Your task to perform on an android device: turn on data saver in the chrome app Image 0: 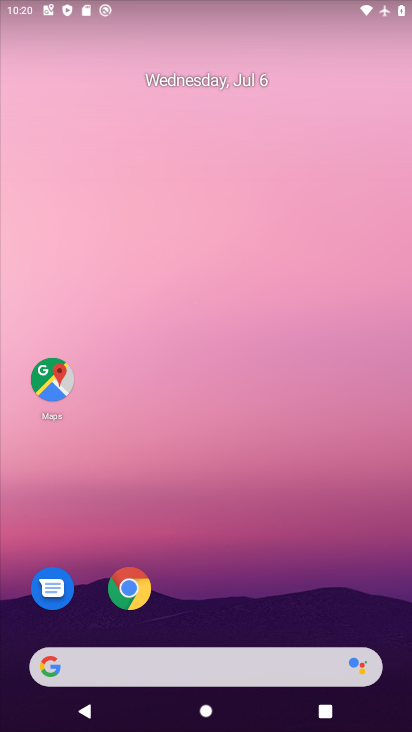
Step 0: drag from (240, 612) to (233, 266)
Your task to perform on an android device: turn on data saver in the chrome app Image 1: 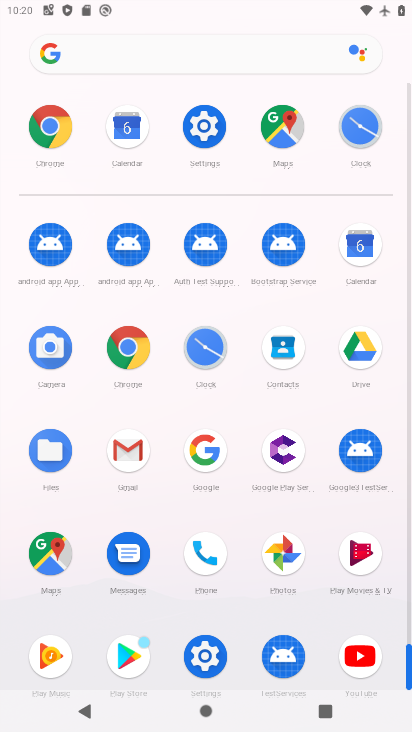
Step 1: click (117, 342)
Your task to perform on an android device: turn on data saver in the chrome app Image 2: 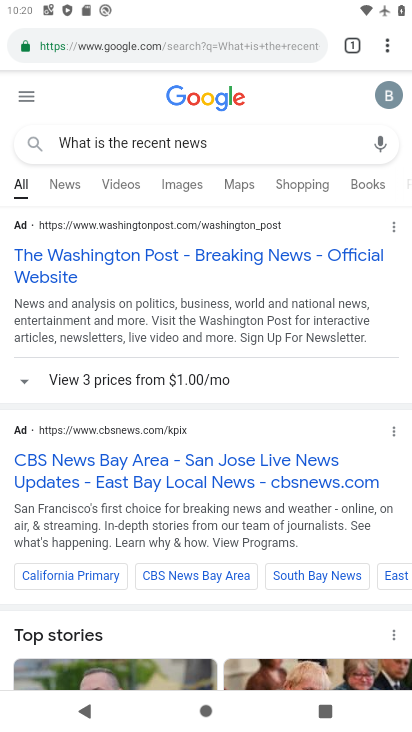
Step 2: click (384, 49)
Your task to perform on an android device: turn on data saver in the chrome app Image 3: 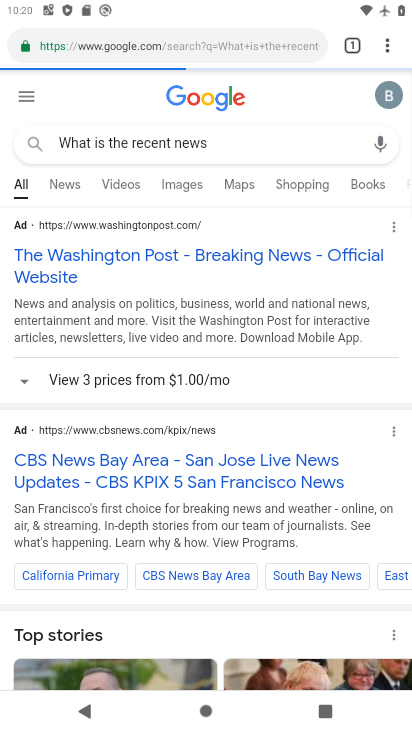
Step 3: click (395, 44)
Your task to perform on an android device: turn on data saver in the chrome app Image 4: 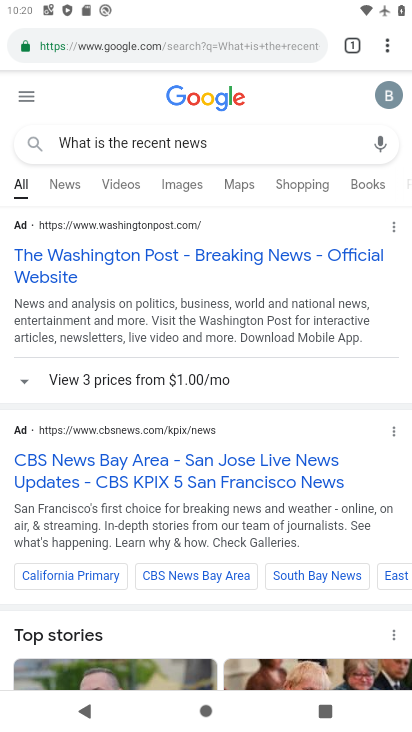
Step 4: click (390, 41)
Your task to perform on an android device: turn on data saver in the chrome app Image 5: 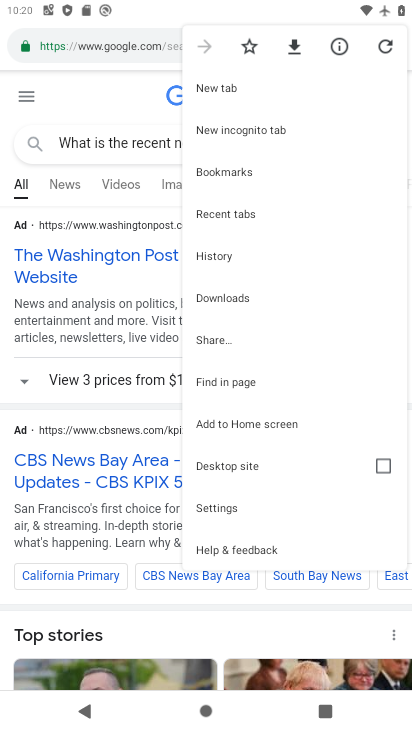
Step 5: click (242, 513)
Your task to perform on an android device: turn on data saver in the chrome app Image 6: 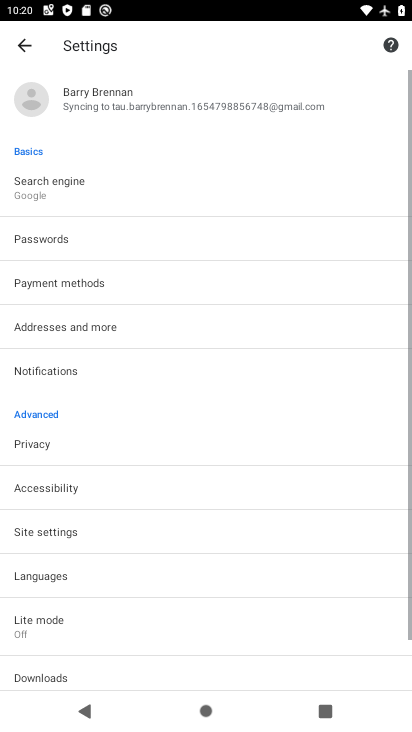
Step 6: drag from (140, 625) to (147, 475)
Your task to perform on an android device: turn on data saver in the chrome app Image 7: 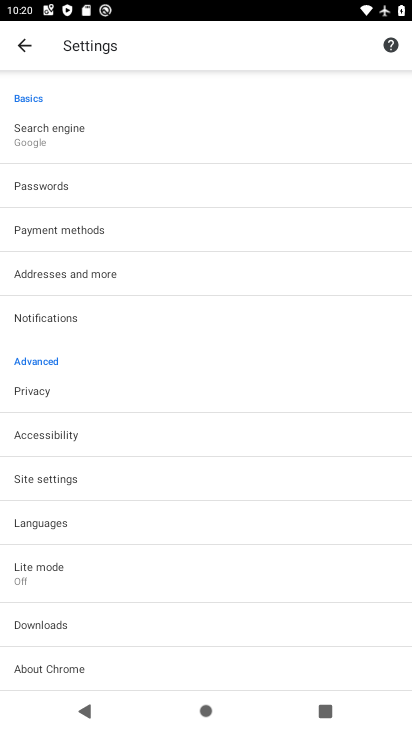
Step 7: click (79, 580)
Your task to perform on an android device: turn on data saver in the chrome app Image 8: 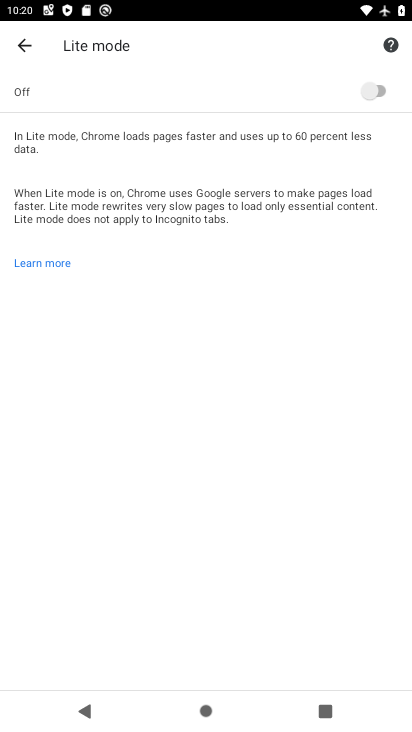
Step 8: click (373, 82)
Your task to perform on an android device: turn on data saver in the chrome app Image 9: 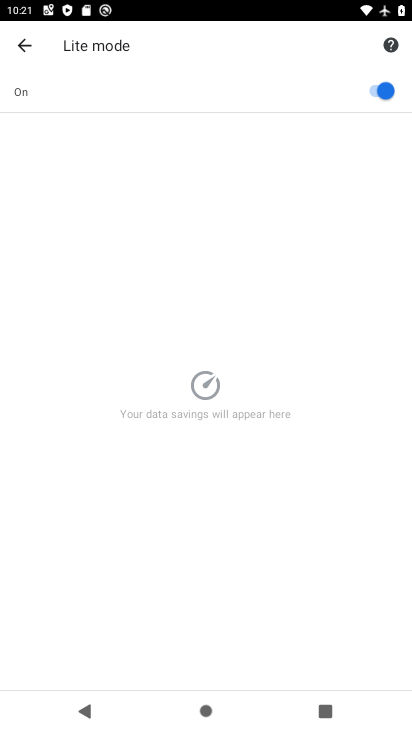
Step 9: task complete